Your task to perform on an android device: Open the phone app and click the voicemail tab. Image 0: 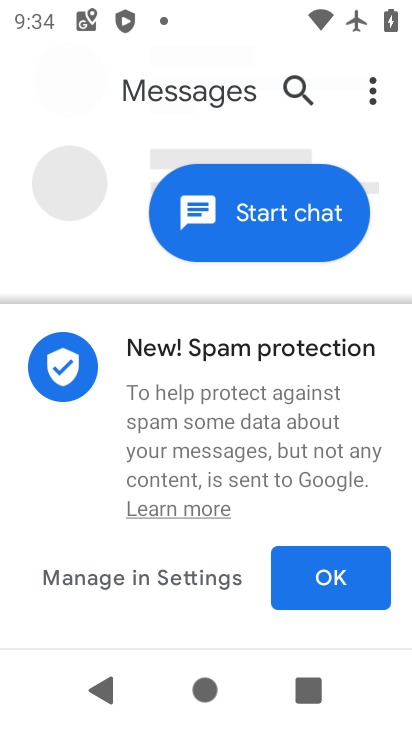
Step 0: press home button
Your task to perform on an android device: Open the phone app and click the voicemail tab. Image 1: 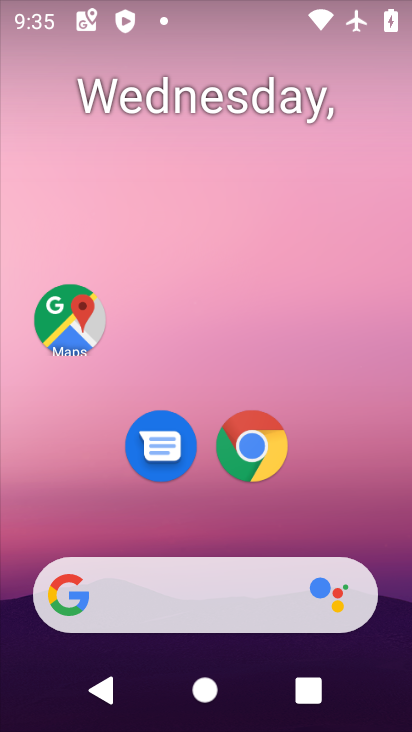
Step 1: drag from (210, 592) to (315, 148)
Your task to perform on an android device: Open the phone app and click the voicemail tab. Image 2: 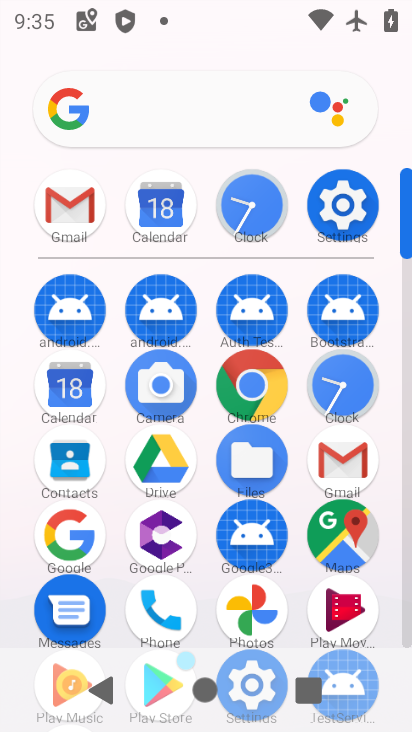
Step 2: drag from (199, 581) to (260, 395)
Your task to perform on an android device: Open the phone app and click the voicemail tab. Image 3: 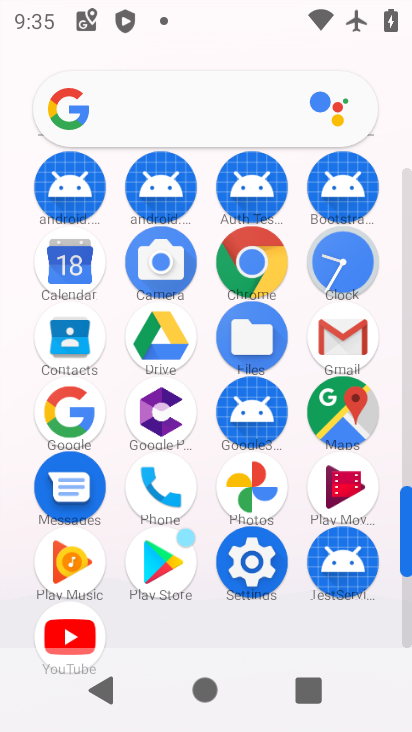
Step 3: click (167, 482)
Your task to perform on an android device: Open the phone app and click the voicemail tab. Image 4: 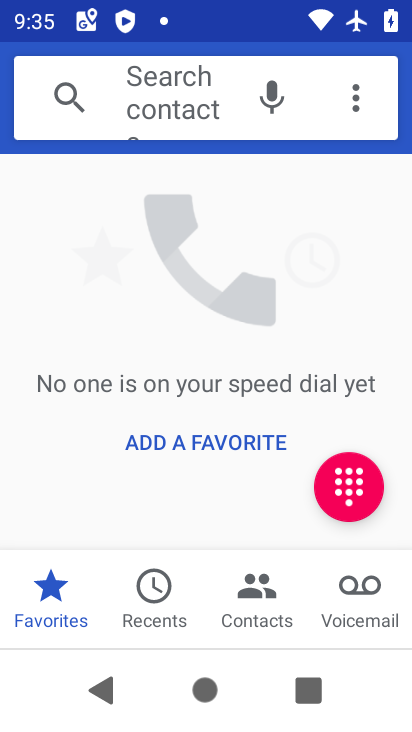
Step 4: click (350, 595)
Your task to perform on an android device: Open the phone app and click the voicemail tab. Image 5: 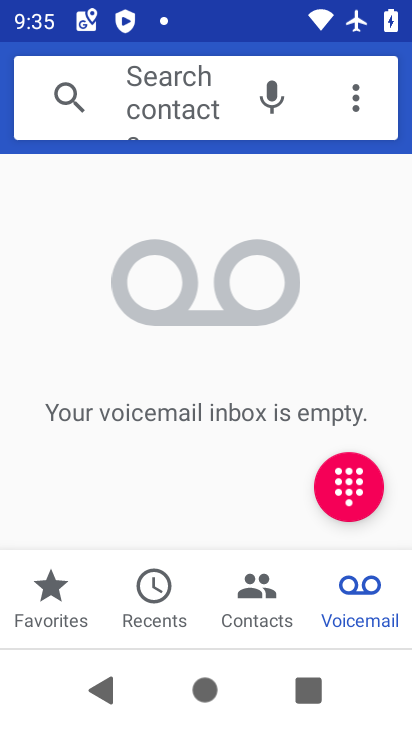
Step 5: task complete